Your task to perform on an android device: Open Reddit.com Image 0: 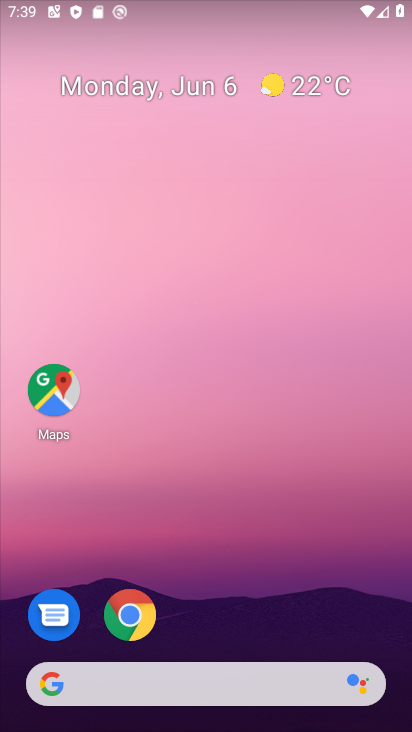
Step 0: click (141, 612)
Your task to perform on an android device: Open Reddit.com Image 1: 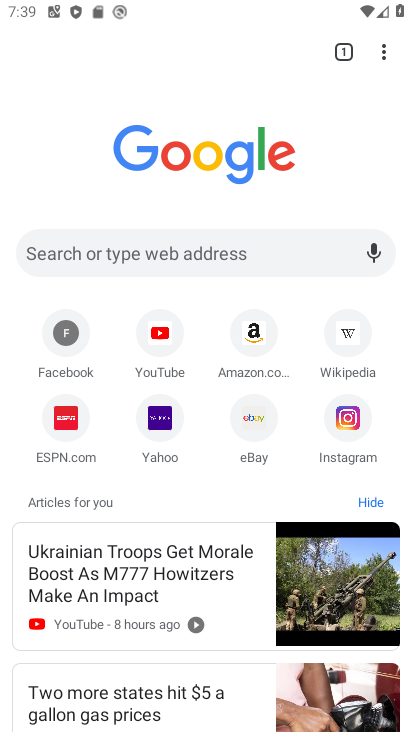
Step 1: click (243, 253)
Your task to perform on an android device: Open Reddit.com Image 2: 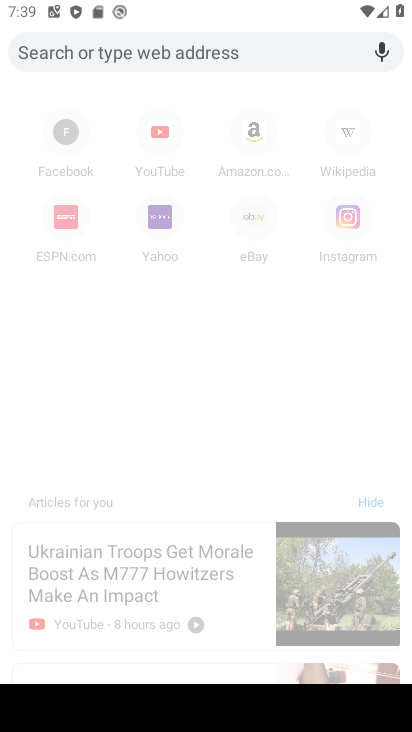
Step 2: type "Reddit.com"
Your task to perform on an android device: Open Reddit.com Image 3: 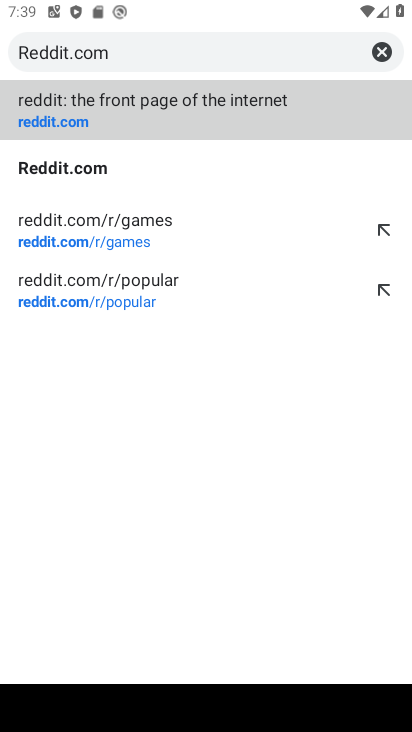
Step 3: click (31, 156)
Your task to perform on an android device: Open Reddit.com Image 4: 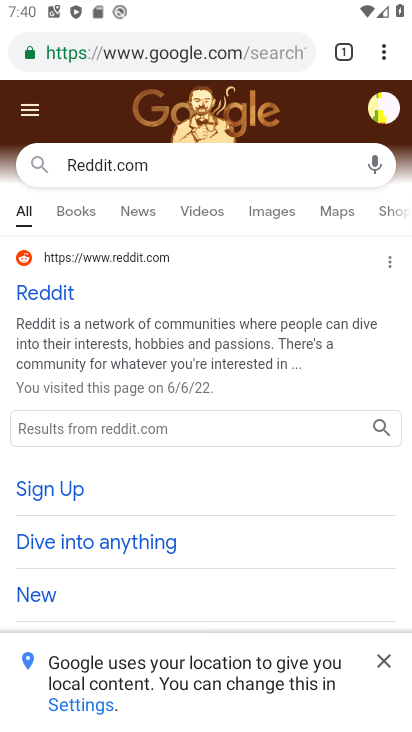
Step 4: task complete